Your task to perform on an android device: Open eBay Image 0: 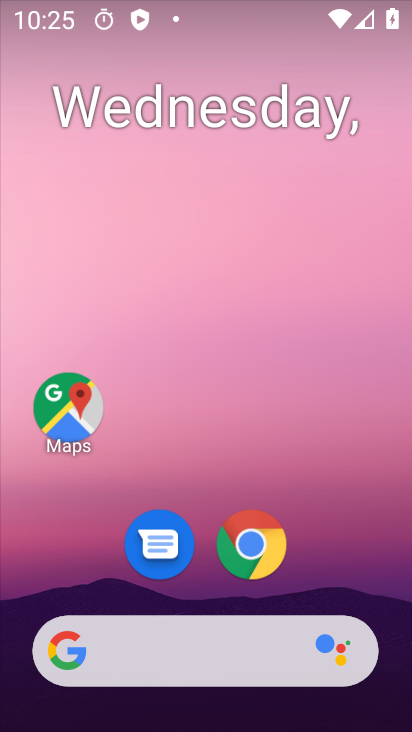
Step 0: drag from (238, 626) to (238, 104)
Your task to perform on an android device: Open eBay Image 1: 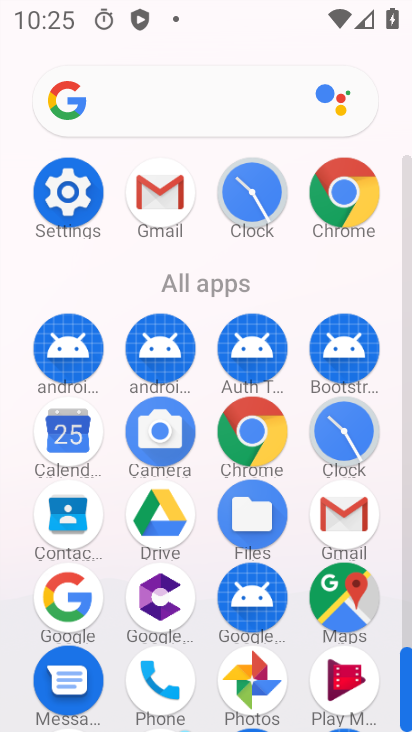
Step 1: click (326, 204)
Your task to perform on an android device: Open eBay Image 2: 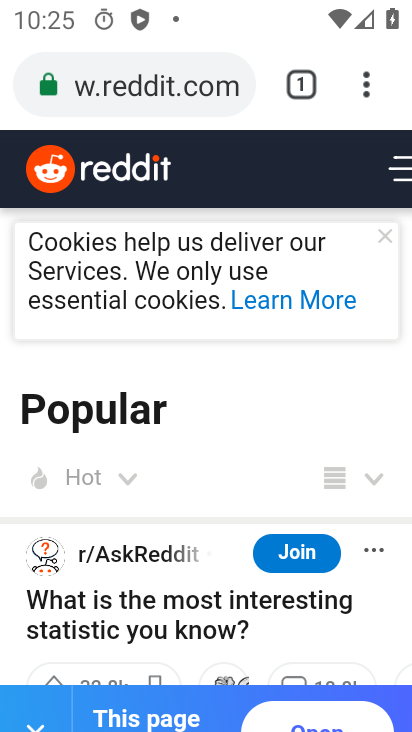
Step 2: click (168, 110)
Your task to perform on an android device: Open eBay Image 3: 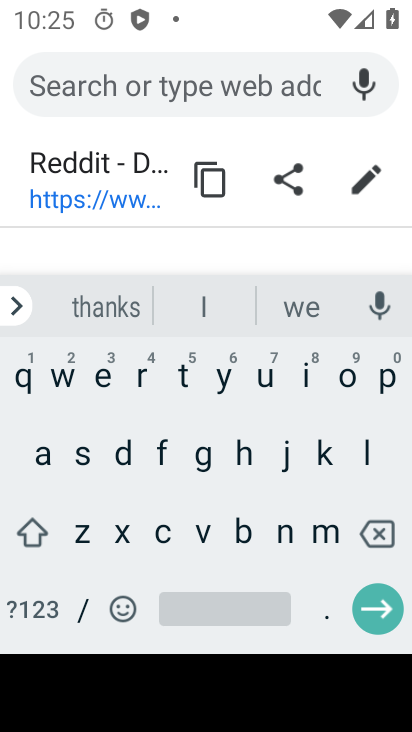
Step 3: click (104, 375)
Your task to perform on an android device: Open eBay Image 4: 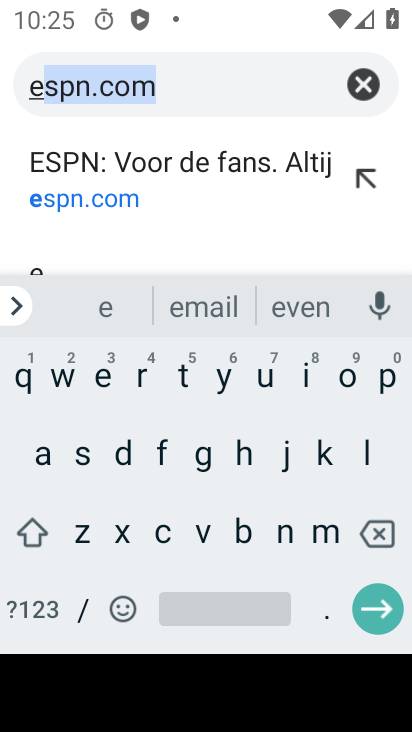
Step 4: click (236, 524)
Your task to perform on an android device: Open eBay Image 5: 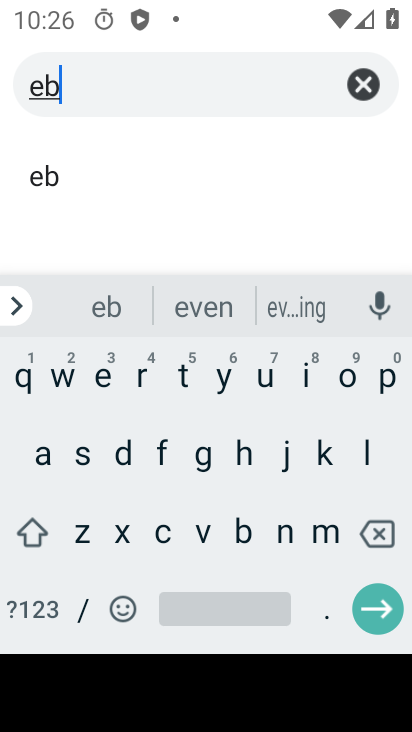
Step 5: click (43, 453)
Your task to perform on an android device: Open eBay Image 6: 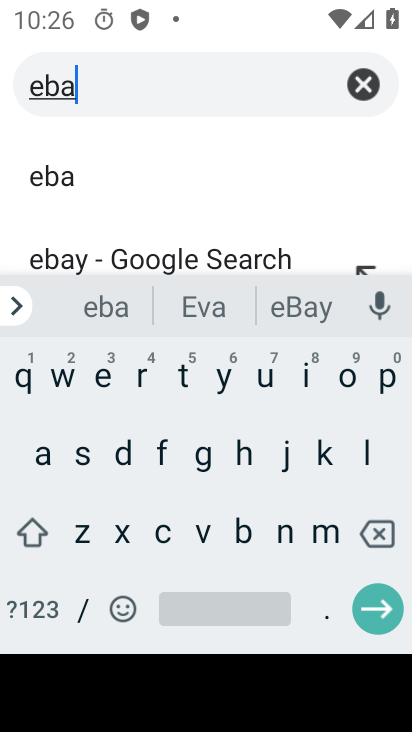
Step 6: click (158, 252)
Your task to perform on an android device: Open eBay Image 7: 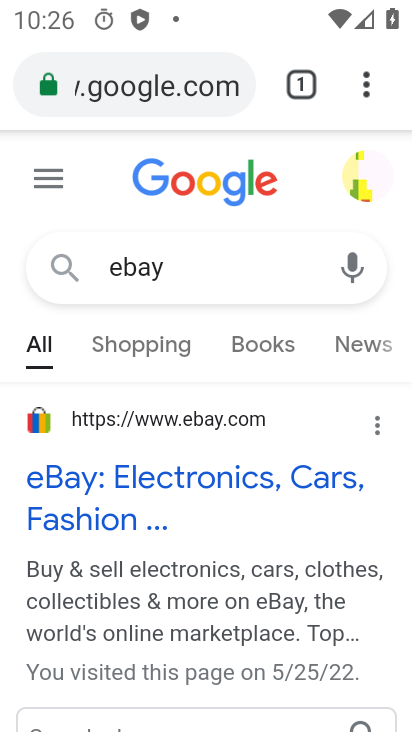
Step 7: click (106, 479)
Your task to perform on an android device: Open eBay Image 8: 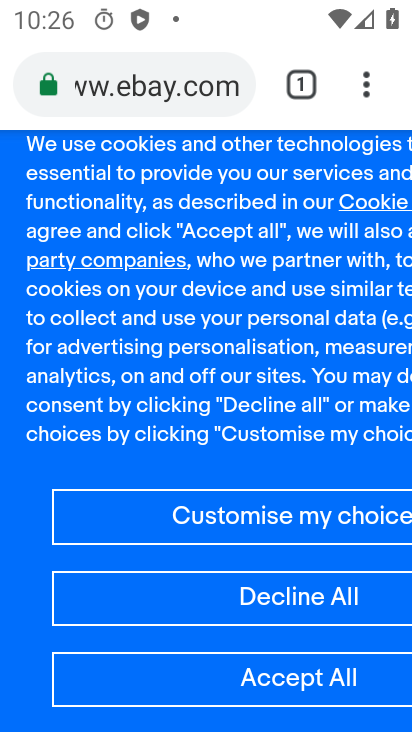
Step 8: click (294, 606)
Your task to perform on an android device: Open eBay Image 9: 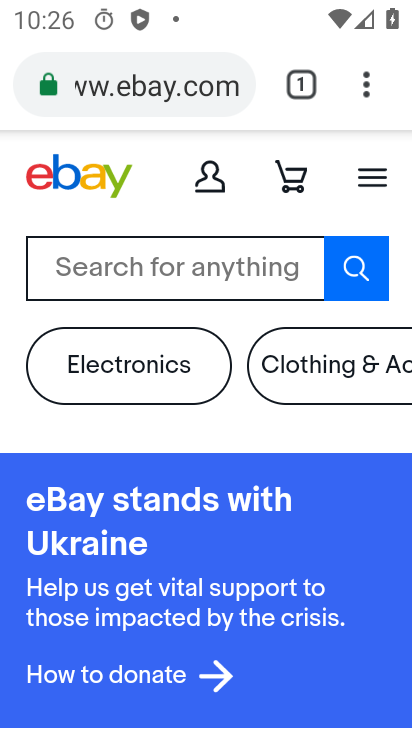
Step 9: task complete